Your task to perform on an android device: open app "Roku - Official Remote Control" (install if not already installed) and enter user name: "autumnal@gmail.com" and password: "stuffing" Image 0: 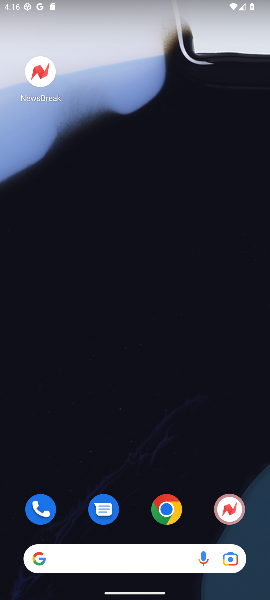
Step 0: drag from (85, 530) to (184, 63)
Your task to perform on an android device: open app "Roku - Official Remote Control" (install if not already installed) and enter user name: "autumnal@gmail.com" and password: "stuffing" Image 1: 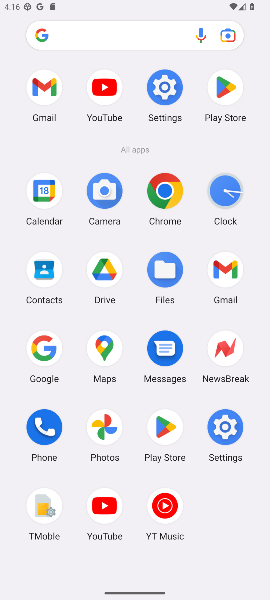
Step 1: click (230, 88)
Your task to perform on an android device: open app "Roku - Official Remote Control" (install if not already installed) and enter user name: "autumnal@gmail.com" and password: "stuffing" Image 2: 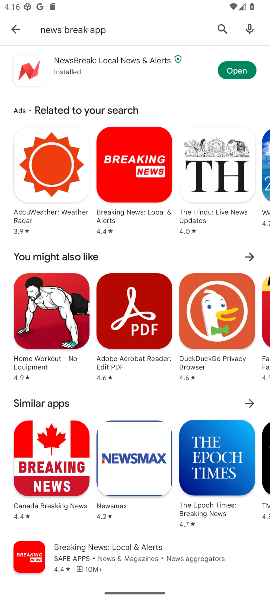
Step 2: click (220, 24)
Your task to perform on an android device: open app "Roku - Official Remote Control" (install if not already installed) and enter user name: "autumnal@gmail.com" and password: "stuffing" Image 3: 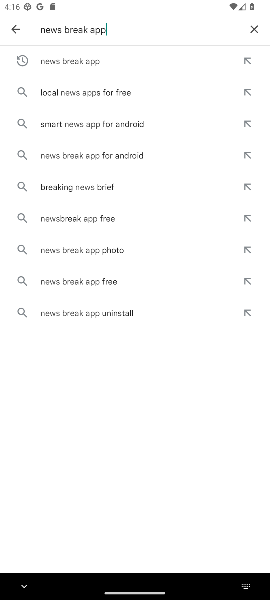
Step 3: click (262, 26)
Your task to perform on an android device: open app "Roku - Official Remote Control" (install if not already installed) and enter user name: "autumnal@gmail.com" and password: "stuffing" Image 4: 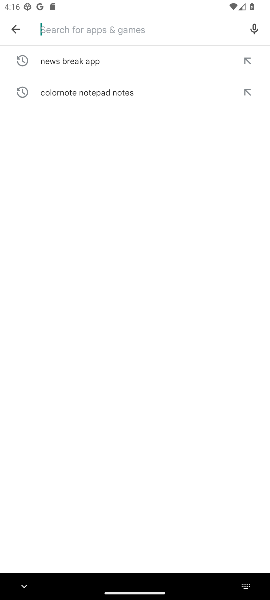
Step 4: click (80, 27)
Your task to perform on an android device: open app "Roku - Official Remote Control" (install if not already installed) and enter user name: "autumnal@gmail.com" and password: "stuffing" Image 5: 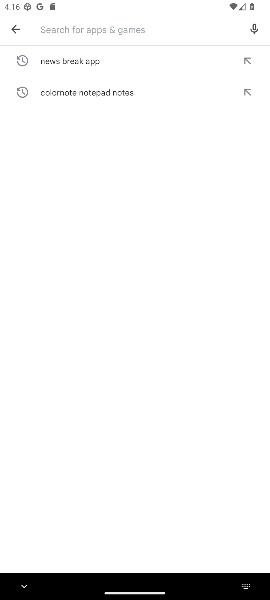
Step 5: type "roku"
Your task to perform on an android device: open app "Roku - Official Remote Control" (install if not already installed) and enter user name: "autumnal@gmail.com" and password: "stuffing" Image 6: 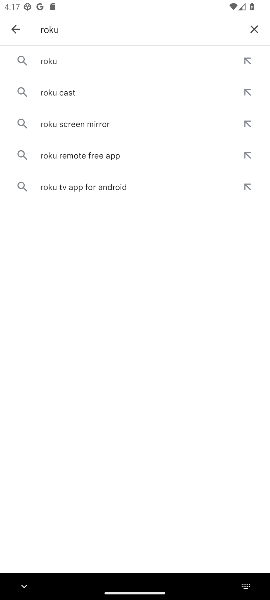
Step 6: click (60, 61)
Your task to perform on an android device: open app "Roku - Official Remote Control" (install if not already installed) and enter user name: "autumnal@gmail.com" and password: "stuffing" Image 7: 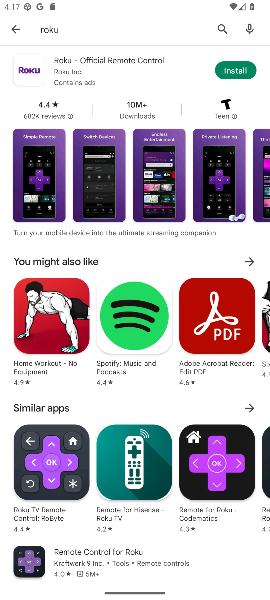
Step 7: click (238, 67)
Your task to perform on an android device: open app "Roku - Official Remote Control" (install if not already installed) and enter user name: "autumnal@gmail.com" and password: "stuffing" Image 8: 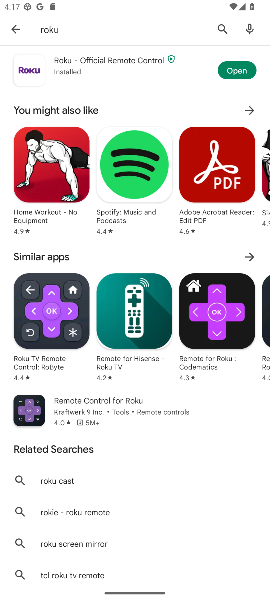
Step 8: click (246, 74)
Your task to perform on an android device: open app "Roku - Official Remote Control" (install if not already installed) and enter user name: "autumnal@gmail.com" and password: "stuffing" Image 9: 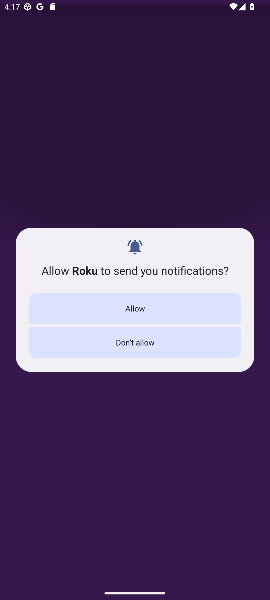
Step 9: click (140, 339)
Your task to perform on an android device: open app "Roku - Official Remote Control" (install if not already installed) and enter user name: "autumnal@gmail.com" and password: "stuffing" Image 10: 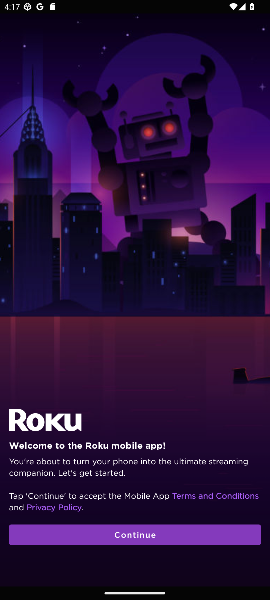
Step 10: click (129, 544)
Your task to perform on an android device: open app "Roku - Official Remote Control" (install if not already installed) and enter user name: "autumnal@gmail.com" and password: "stuffing" Image 11: 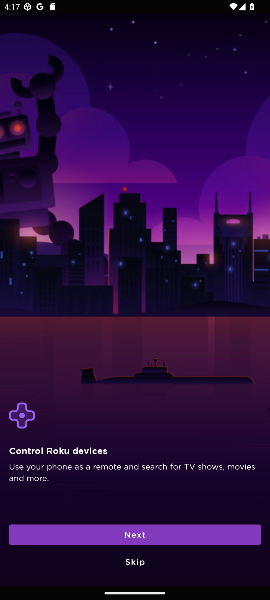
Step 11: click (148, 566)
Your task to perform on an android device: open app "Roku - Official Remote Control" (install if not already installed) and enter user name: "autumnal@gmail.com" and password: "stuffing" Image 12: 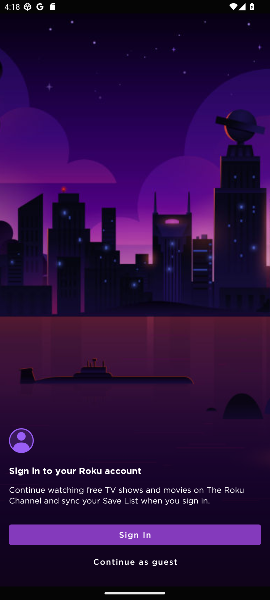
Step 12: click (147, 529)
Your task to perform on an android device: open app "Roku - Official Remote Control" (install if not already installed) and enter user name: "autumnal@gmail.com" and password: "stuffing" Image 13: 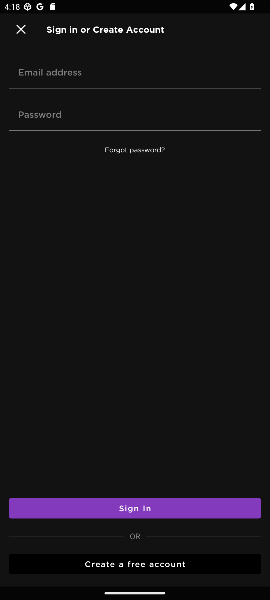
Step 13: click (90, 74)
Your task to perform on an android device: open app "Roku - Official Remote Control" (install if not already installed) and enter user name: "autumnal@gmail.com" and password: "stuffing" Image 14: 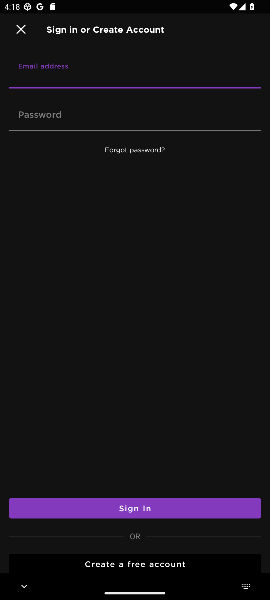
Step 14: type "autumnal@gmail.com"
Your task to perform on an android device: open app "Roku - Official Remote Control" (install if not already installed) and enter user name: "autumnal@gmail.com" and password: "stuffing" Image 15: 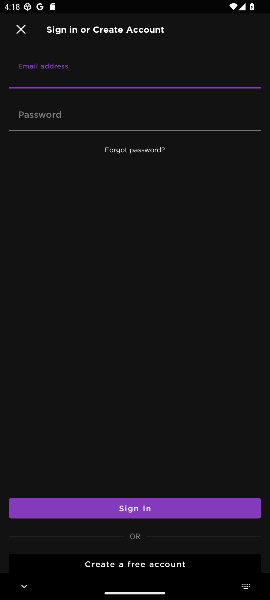
Step 15: click (196, 335)
Your task to perform on an android device: open app "Roku - Official Remote Control" (install if not already installed) and enter user name: "autumnal@gmail.com" and password: "stuffing" Image 16: 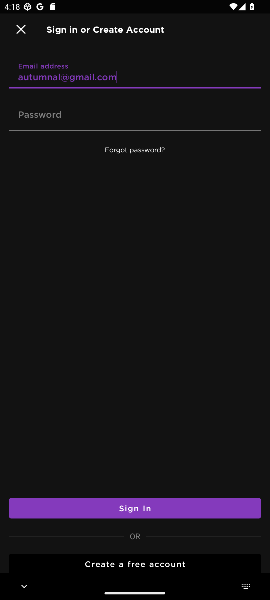
Step 16: click (65, 121)
Your task to perform on an android device: open app "Roku - Official Remote Control" (install if not already installed) and enter user name: "autumnal@gmail.com" and password: "stuffing" Image 17: 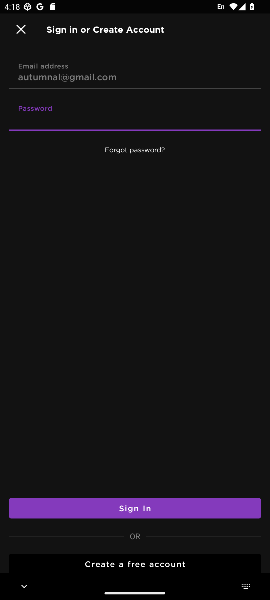
Step 17: click (82, 117)
Your task to perform on an android device: open app "Roku - Official Remote Control" (install if not already installed) and enter user name: "autumnal@gmail.com" and password: "stuffing" Image 18: 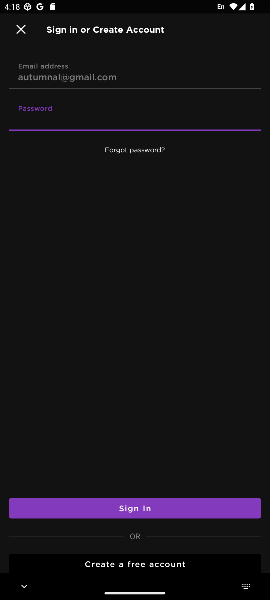
Step 18: type "stuffing"
Your task to perform on an android device: open app "Roku - Official Remote Control" (install if not already installed) and enter user name: "autumnal@gmail.com" and password: "stuffing" Image 19: 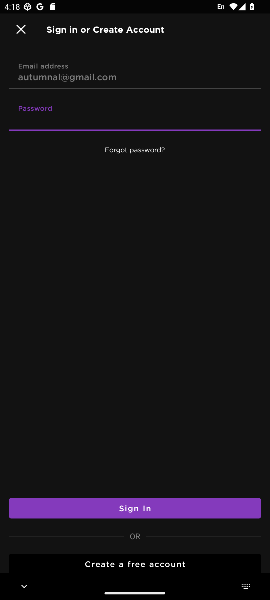
Step 19: click (170, 299)
Your task to perform on an android device: open app "Roku - Official Remote Control" (install if not already installed) and enter user name: "autumnal@gmail.com" and password: "stuffing" Image 20: 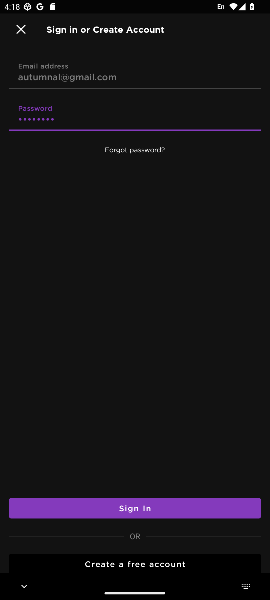
Step 20: click (170, 299)
Your task to perform on an android device: open app "Roku - Official Remote Control" (install if not already installed) and enter user name: "autumnal@gmail.com" and password: "stuffing" Image 21: 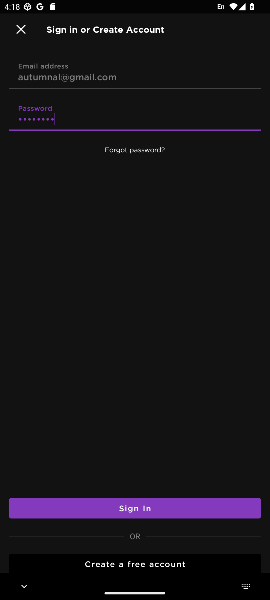
Step 21: task complete